Your task to perform on an android device: Open Google Maps and go to "Timeline" Image 0: 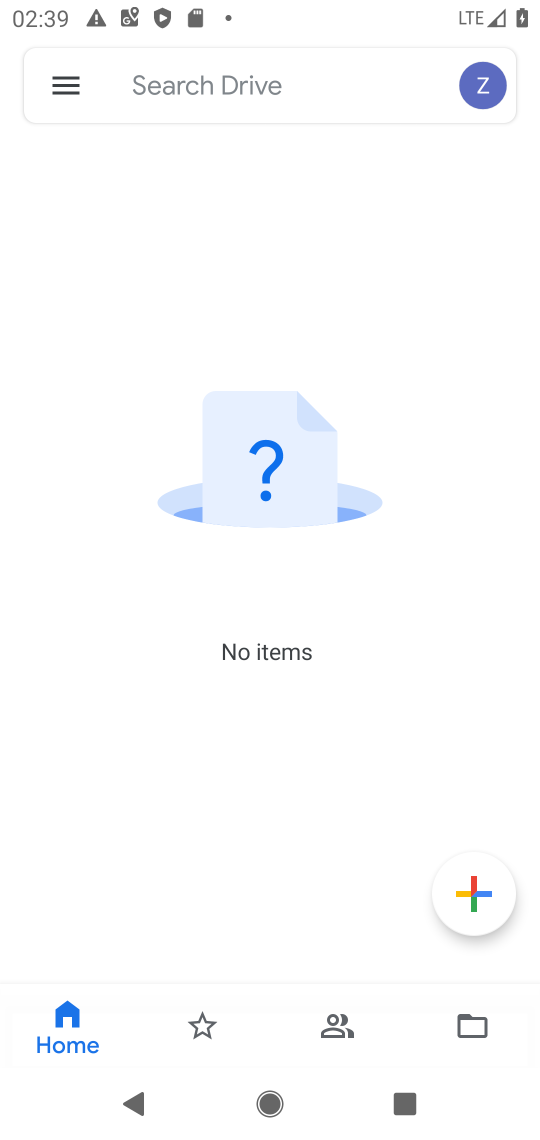
Step 0: press home button
Your task to perform on an android device: Open Google Maps and go to "Timeline" Image 1: 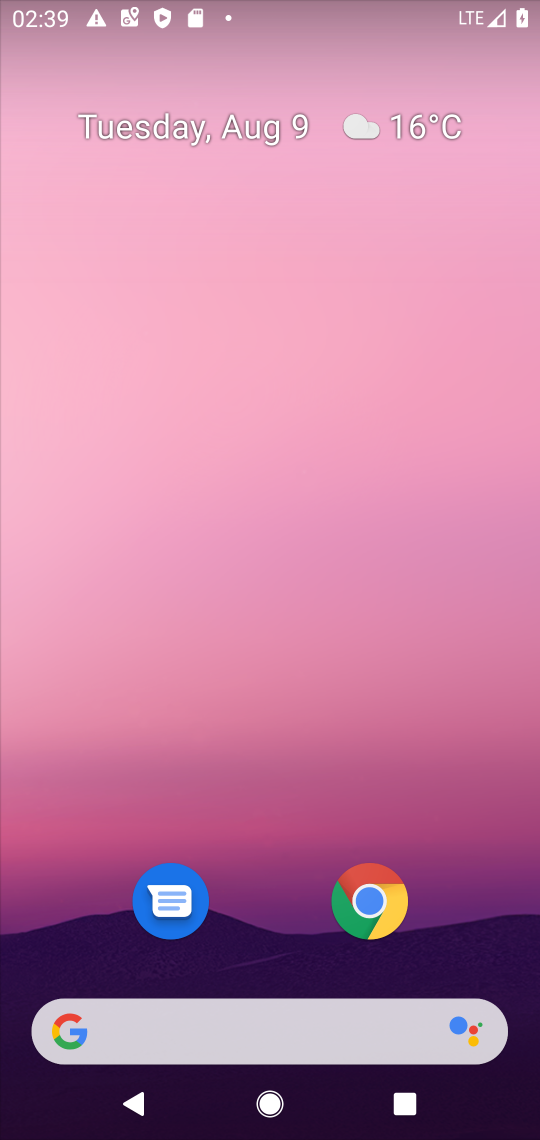
Step 1: drag from (505, 956) to (468, 257)
Your task to perform on an android device: Open Google Maps and go to "Timeline" Image 2: 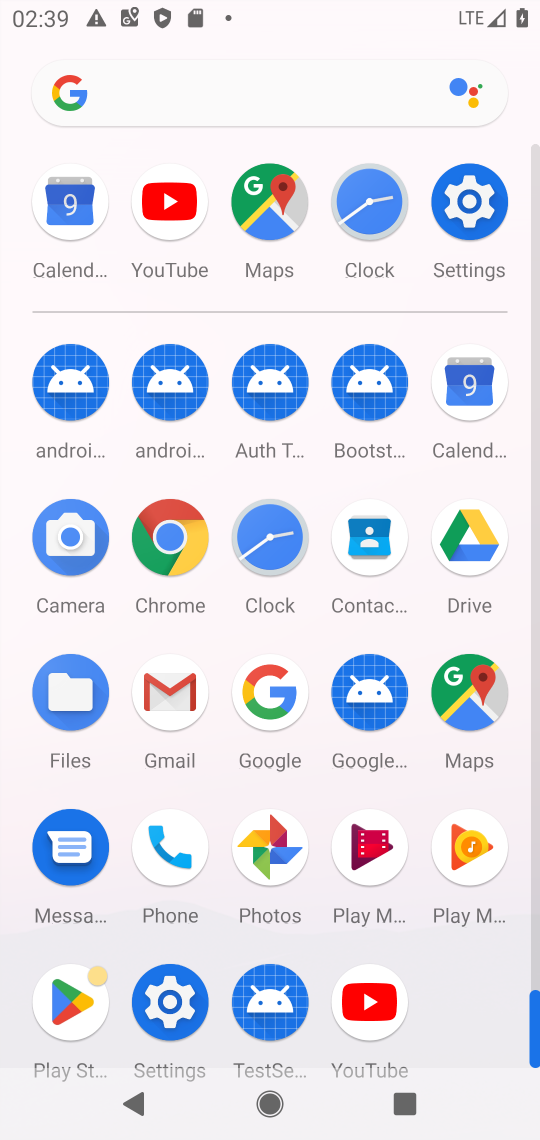
Step 2: click (473, 694)
Your task to perform on an android device: Open Google Maps and go to "Timeline" Image 3: 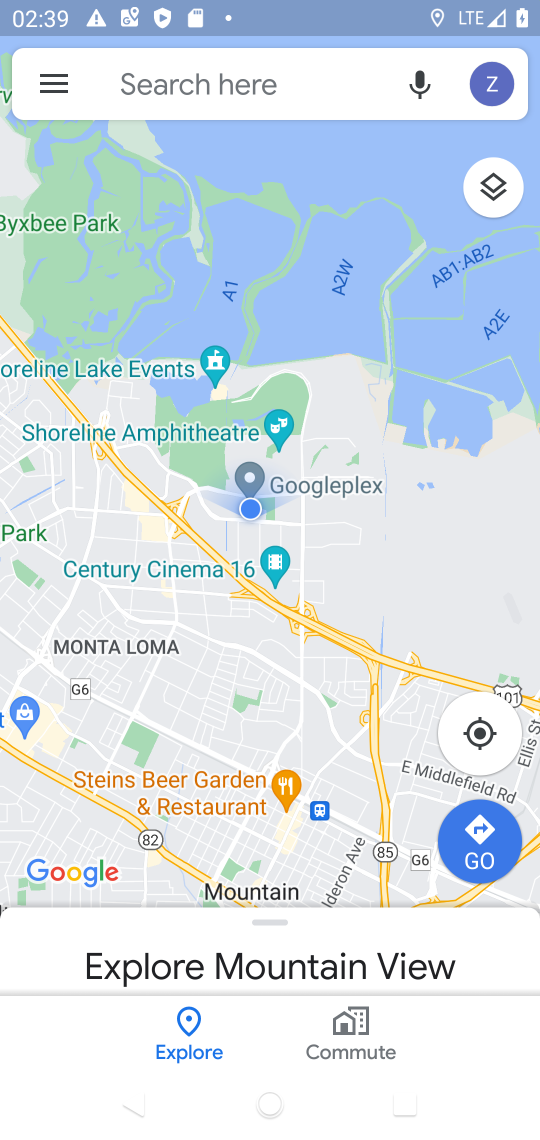
Step 3: click (50, 85)
Your task to perform on an android device: Open Google Maps and go to "Timeline" Image 4: 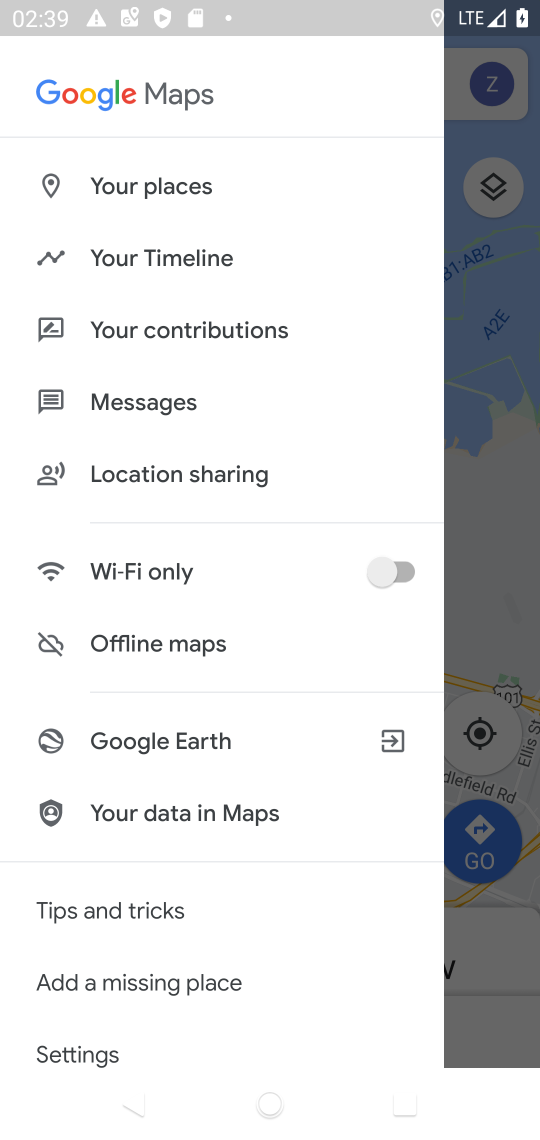
Step 4: click (162, 260)
Your task to perform on an android device: Open Google Maps and go to "Timeline" Image 5: 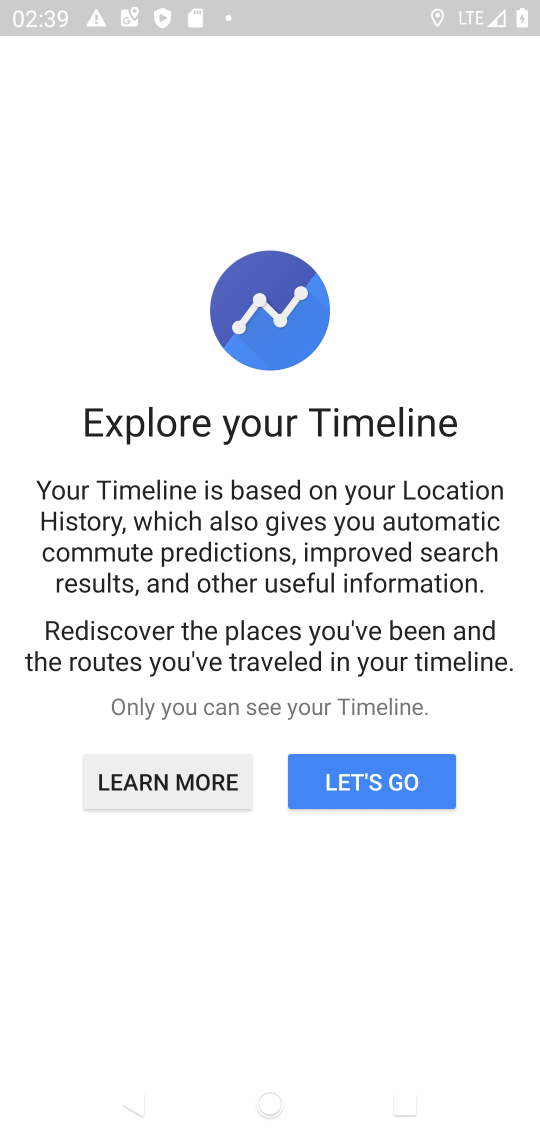
Step 5: click (385, 784)
Your task to perform on an android device: Open Google Maps and go to "Timeline" Image 6: 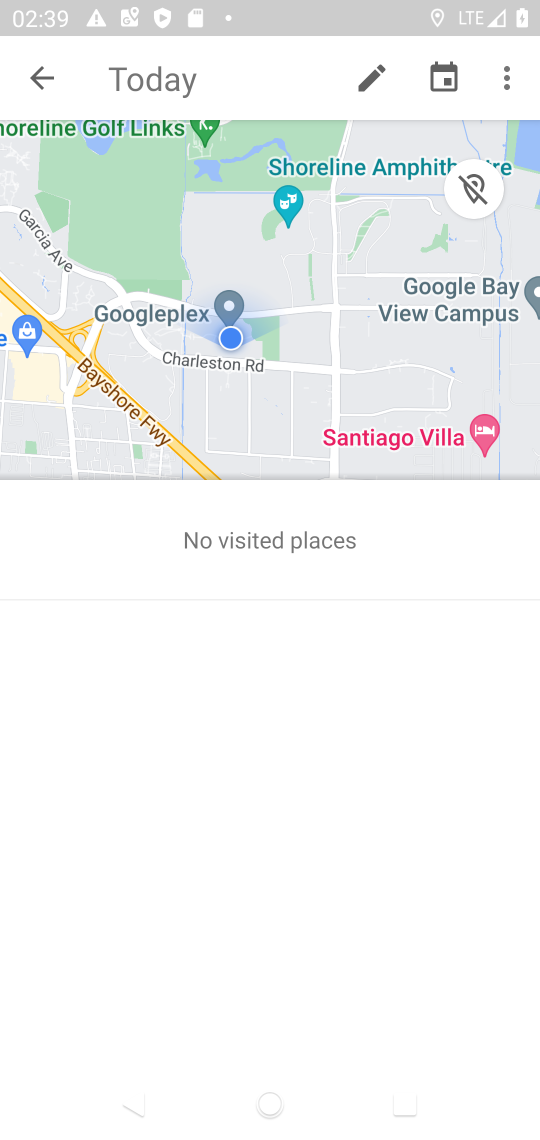
Step 6: task complete